Your task to perform on an android device: Search for "razer blade" on target.com, select the first entry, and add it to the cart. Image 0: 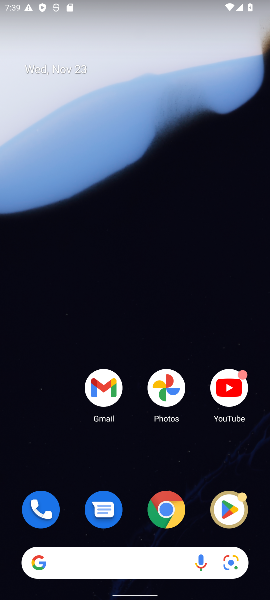
Step 0: click (177, 515)
Your task to perform on an android device: Search for "razer blade" on target.com, select the first entry, and add it to the cart. Image 1: 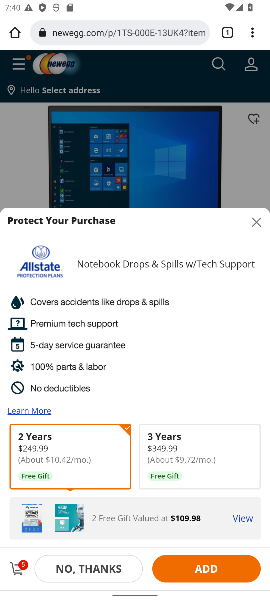
Step 1: click (115, 35)
Your task to perform on an android device: Search for "razer blade" on target.com, select the first entry, and add it to the cart. Image 2: 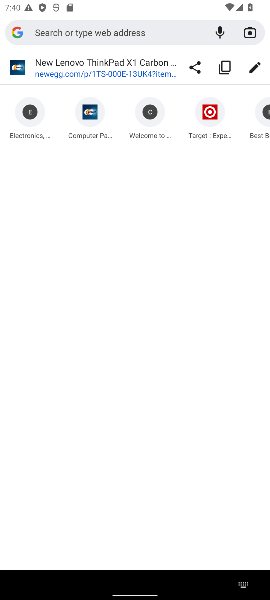
Step 2: type "target.com"
Your task to perform on an android device: Search for "razer blade" on target.com, select the first entry, and add it to the cart. Image 3: 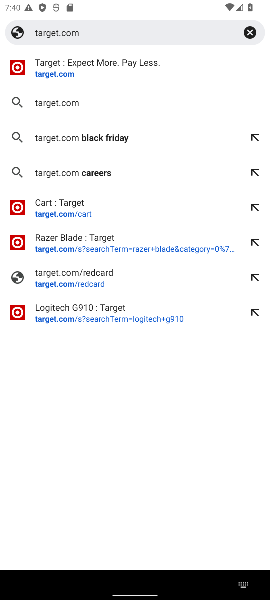
Step 3: click (155, 59)
Your task to perform on an android device: Search for "razer blade" on target.com, select the first entry, and add it to the cart. Image 4: 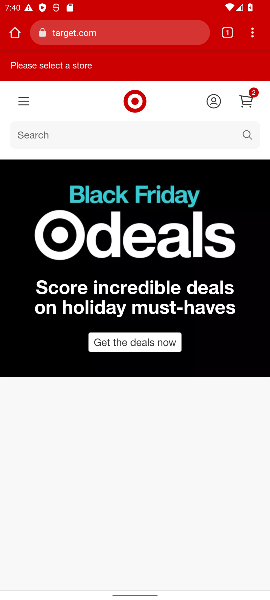
Step 4: click (112, 138)
Your task to perform on an android device: Search for "razer blade" on target.com, select the first entry, and add it to the cart. Image 5: 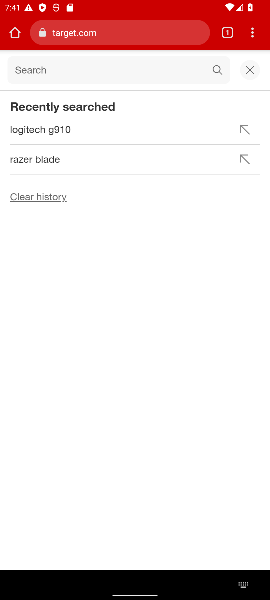
Step 5: type "razer blade"
Your task to perform on an android device: Search for "razer blade" on target.com, select the first entry, and add it to the cart. Image 6: 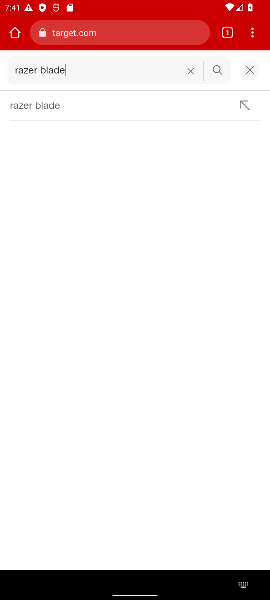
Step 6: click (103, 110)
Your task to perform on an android device: Search for "razer blade" on target.com, select the first entry, and add it to the cart. Image 7: 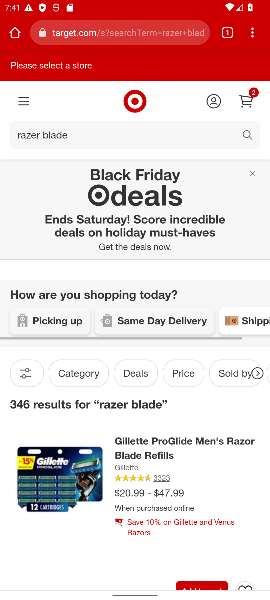
Step 7: drag from (122, 530) to (87, 285)
Your task to perform on an android device: Search for "razer blade" on target.com, select the first entry, and add it to the cart. Image 8: 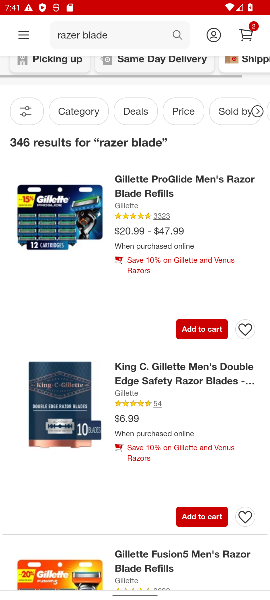
Step 8: click (199, 329)
Your task to perform on an android device: Search for "razer blade" on target.com, select the first entry, and add it to the cart. Image 9: 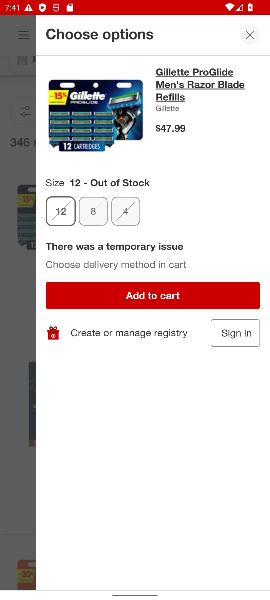
Step 9: click (126, 304)
Your task to perform on an android device: Search for "razer blade" on target.com, select the first entry, and add it to the cart. Image 10: 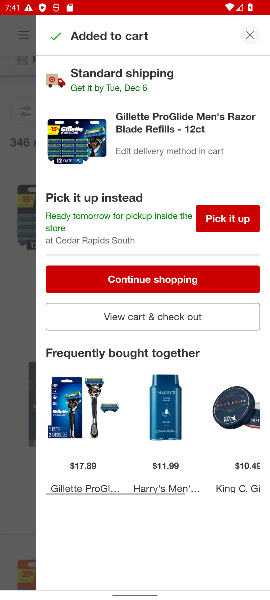
Step 10: task complete